Your task to perform on an android device: turn on the 12-hour format for clock Image 0: 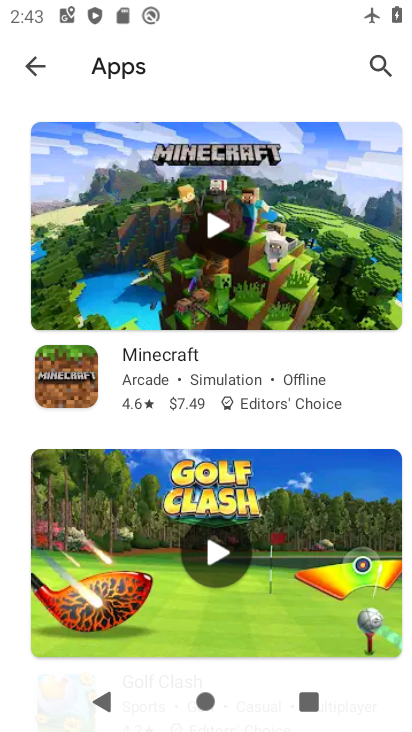
Step 0: press home button
Your task to perform on an android device: turn on the 12-hour format for clock Image 1: 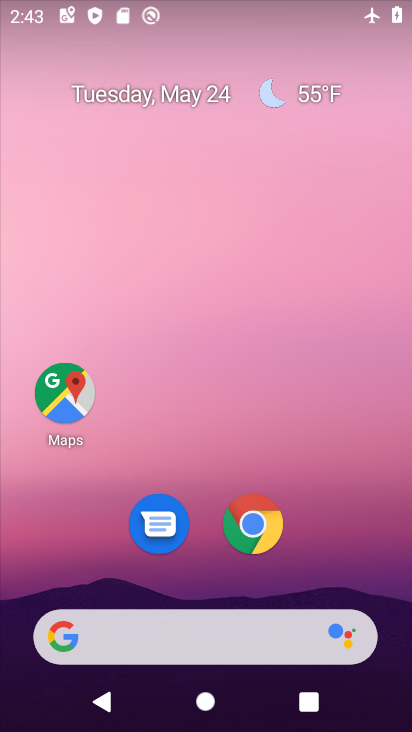
Step 1: drag from (308, 480) to (330, 75)
Your task to perform on an android device: turn on the 12-hour format for clock Image 2: 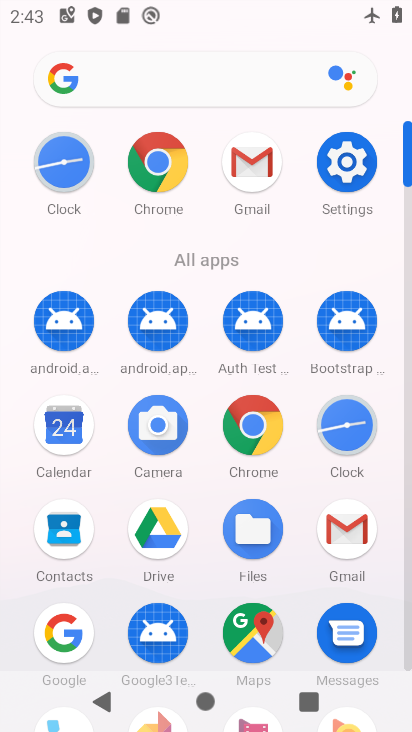
Step 2: click (352, 431)
Your task to perform on an android device: turn on the 12-hour format for clock Image 3: 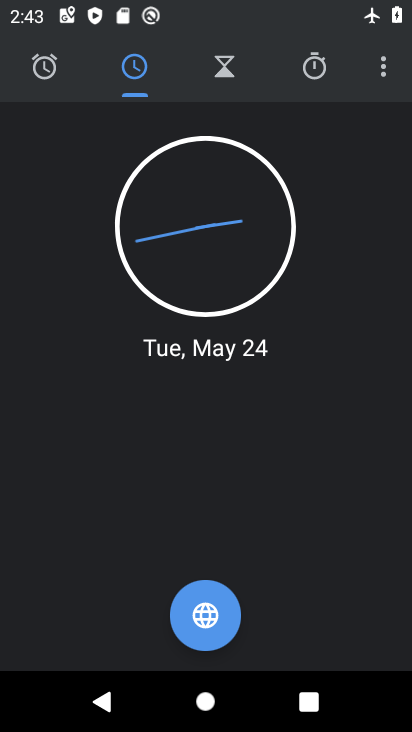
Step 3: click (384, 67)
Your task to perform on an android device: turn on the 12-hour format for clock Image 4: 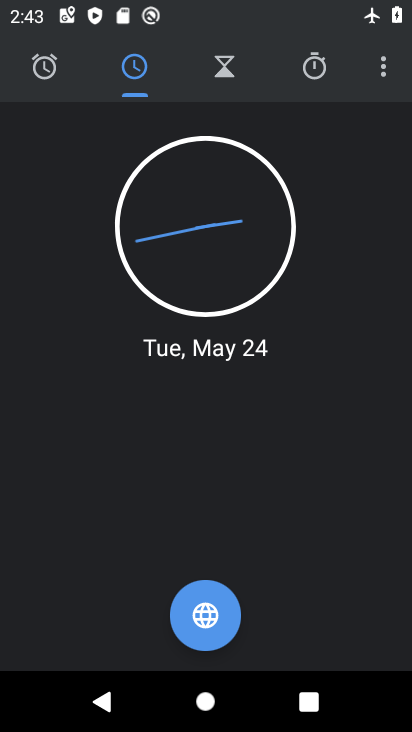
Step 4: click (376, 76)
Your task to perform on an android device: turn on the 12-hour format for clock Image 5: 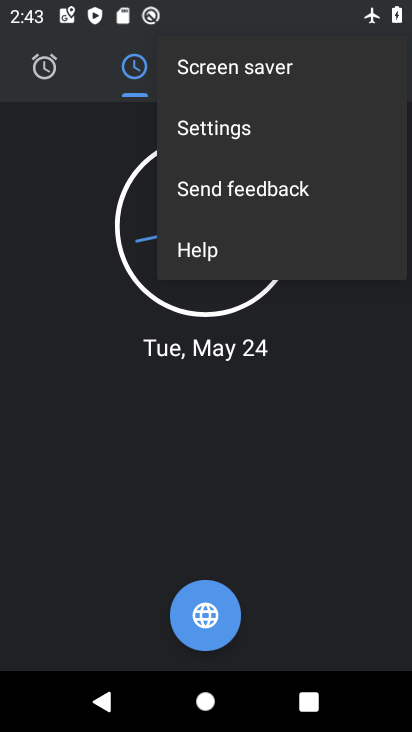
Step 5: click (319, 131)
Your task to perform on an android device: turn on the 12-hour format for clock Image 6: 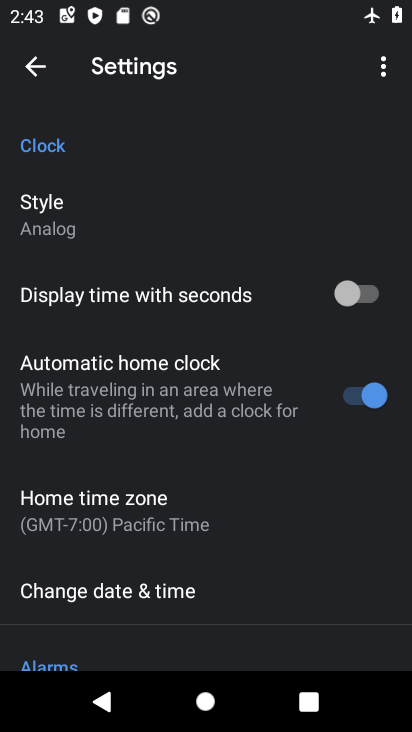
Step 6: click (285, 597)
Your task to perform on an android device: turn on the 12-hour format for clock Image 7: 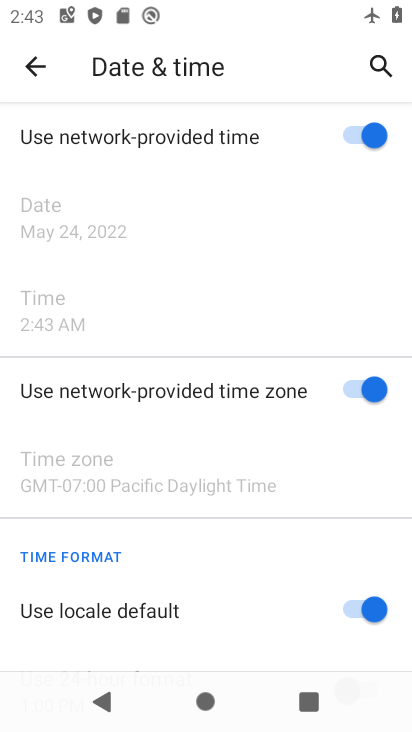
Step 7: task complete